Your task to perform on an android device: Turn off the flashlight Image 0: 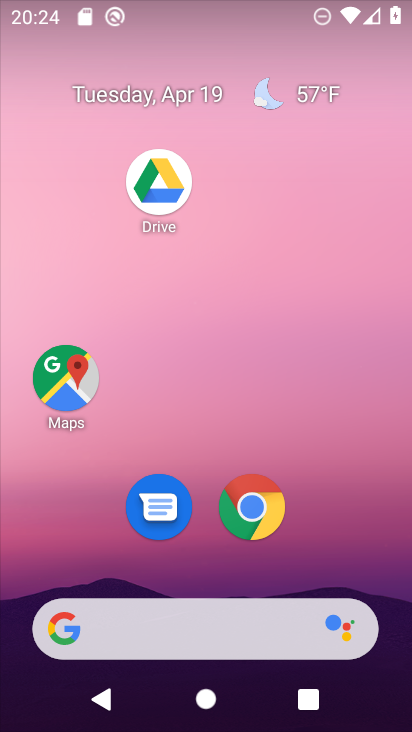
Step 0: drag from (363, 446) to (376, 117)
Your task to perform on an android device: Turn off the flashlight Image 1: 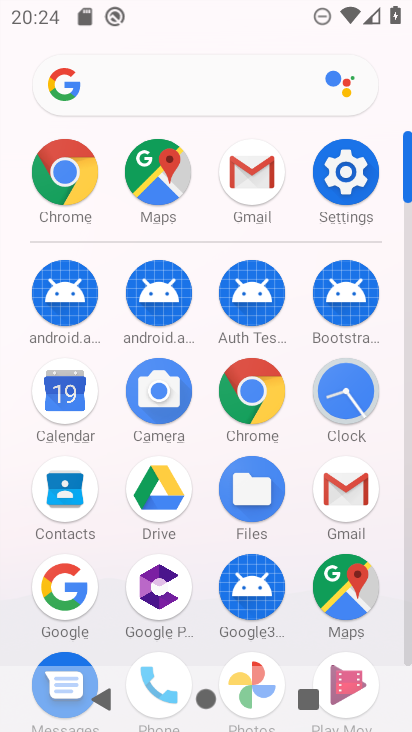
Step 1: click (351, 157)
Your task to perform on an android device: Turn off the flashlight Image 2: 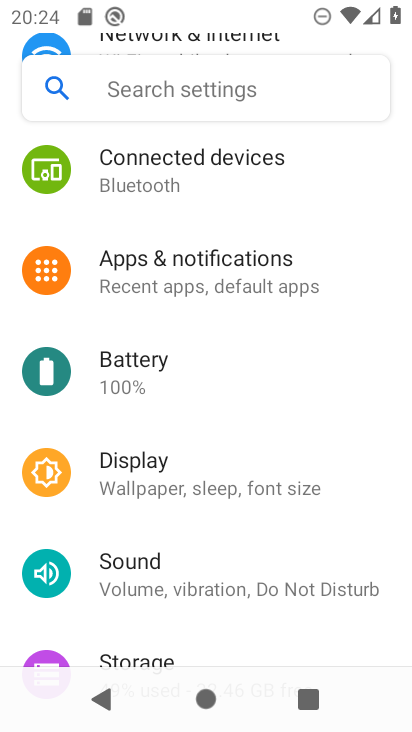
Step 2: click (273, 78)
Your task to perform on an android device: Turn off the flashlight Image 3: 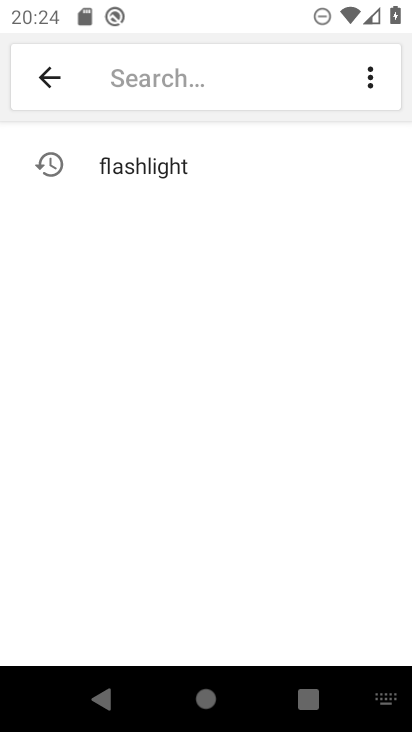
Step 3: click (180, 165)
Your task to perform on an android device: Turn off the flashlight Image 4: 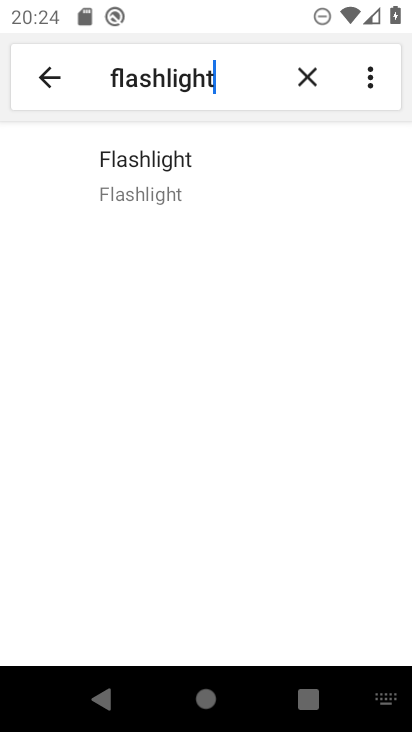
Step 4: click (146, 166)
Your task to perform on an android device: Turn off the flashlight Image 5: 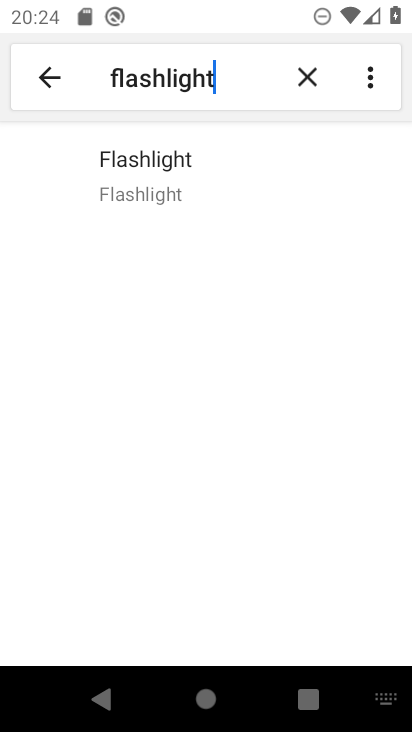
Step 5: task complete